Your task to perform on an android device: Do I have any events this weekend? Image 0: 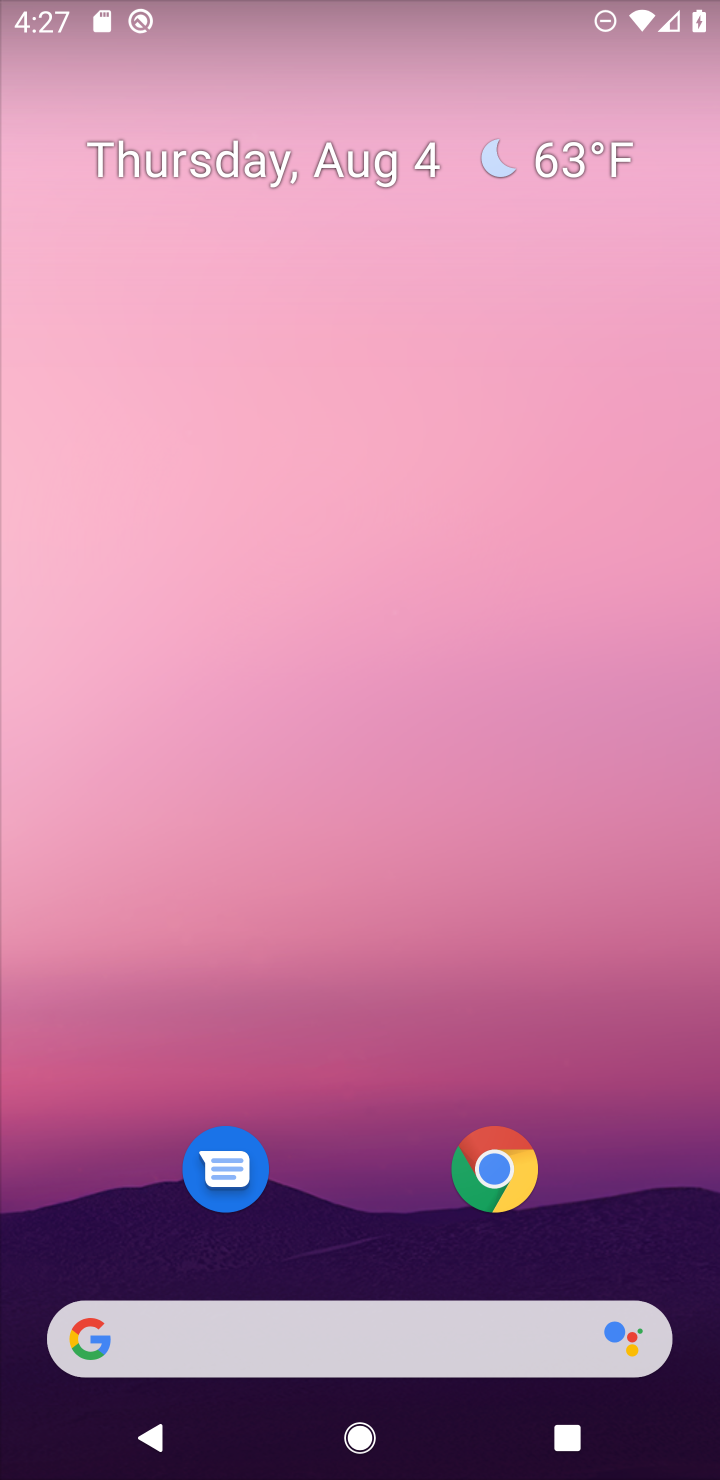
Step 0: drag from (369, 589) to (373, 4)
Your task to perform on an android device: Do I have any events this weekend? Image 1: 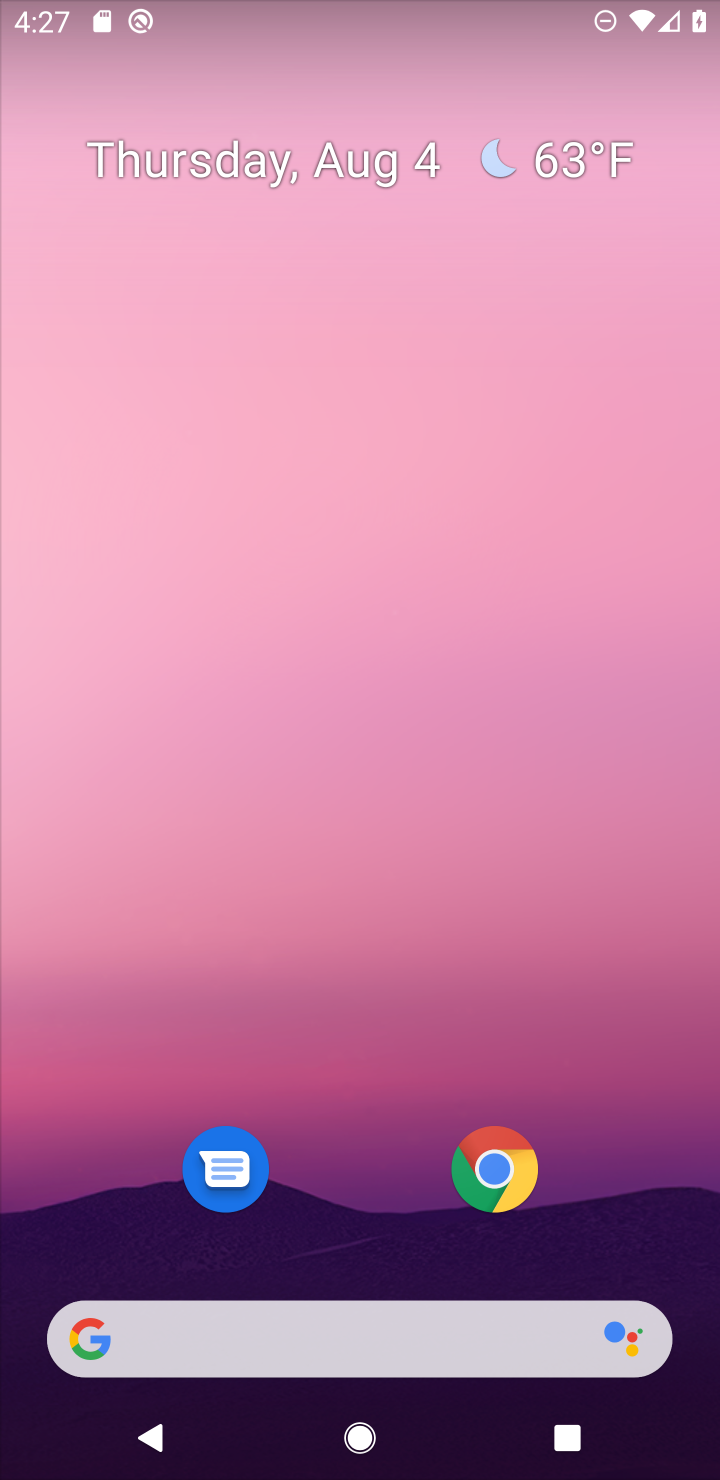
Step 1: drag from (381, 766) to (382, 101)
Your task to perform on an android device: Do I have any events this weekend? Image 2: 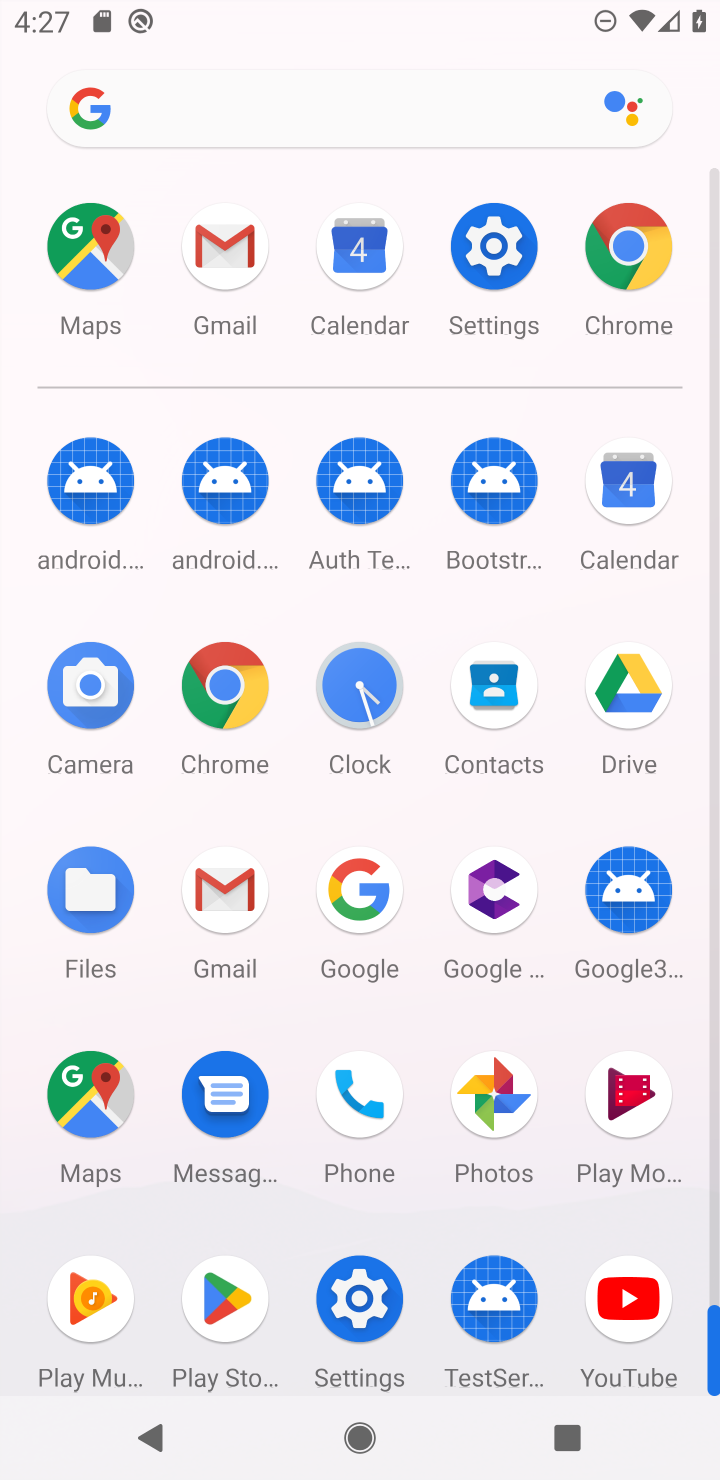
Step 2: click (622, 527)
Your task to perform on an android device: Do I have any events this weekend? Image 3: 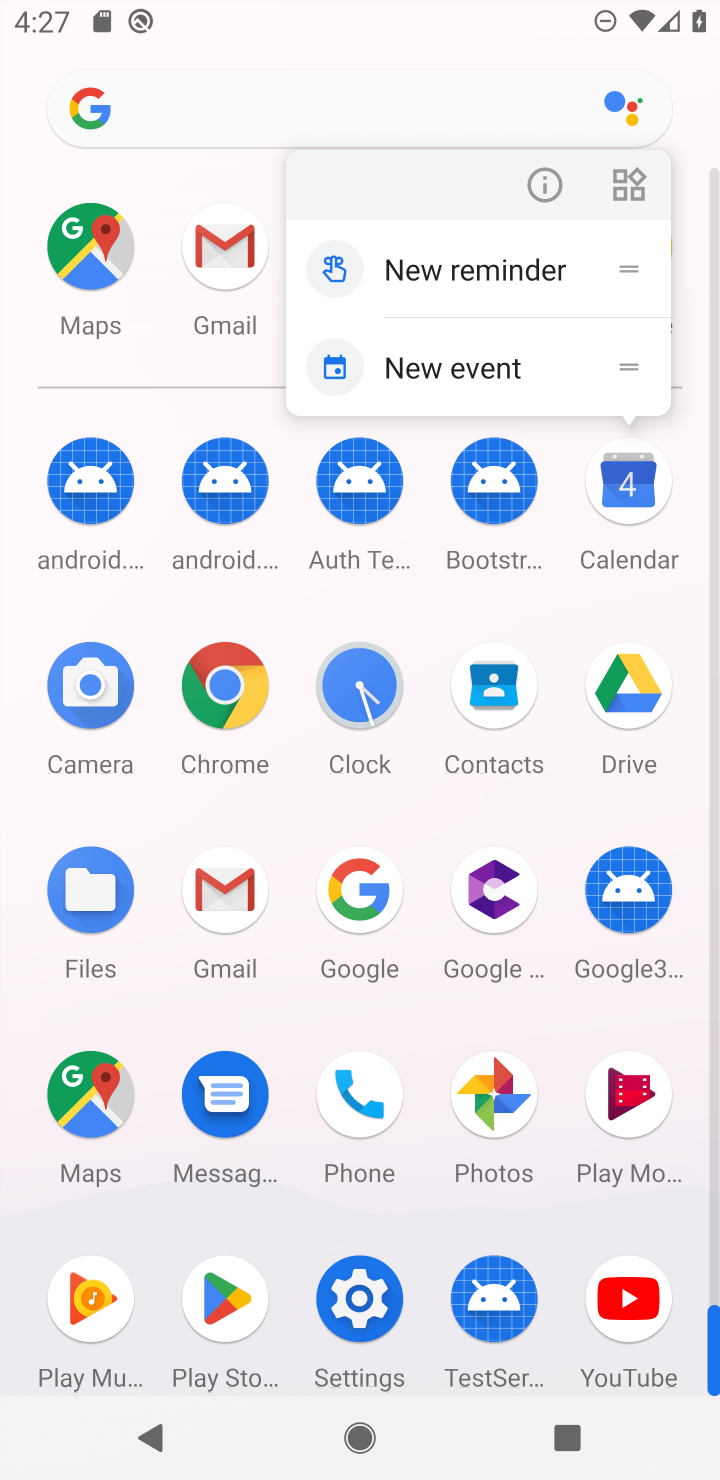
Step 3: click (621, 527)
Your task to perform on an android device: Do I have any events this weekend? Image 4: 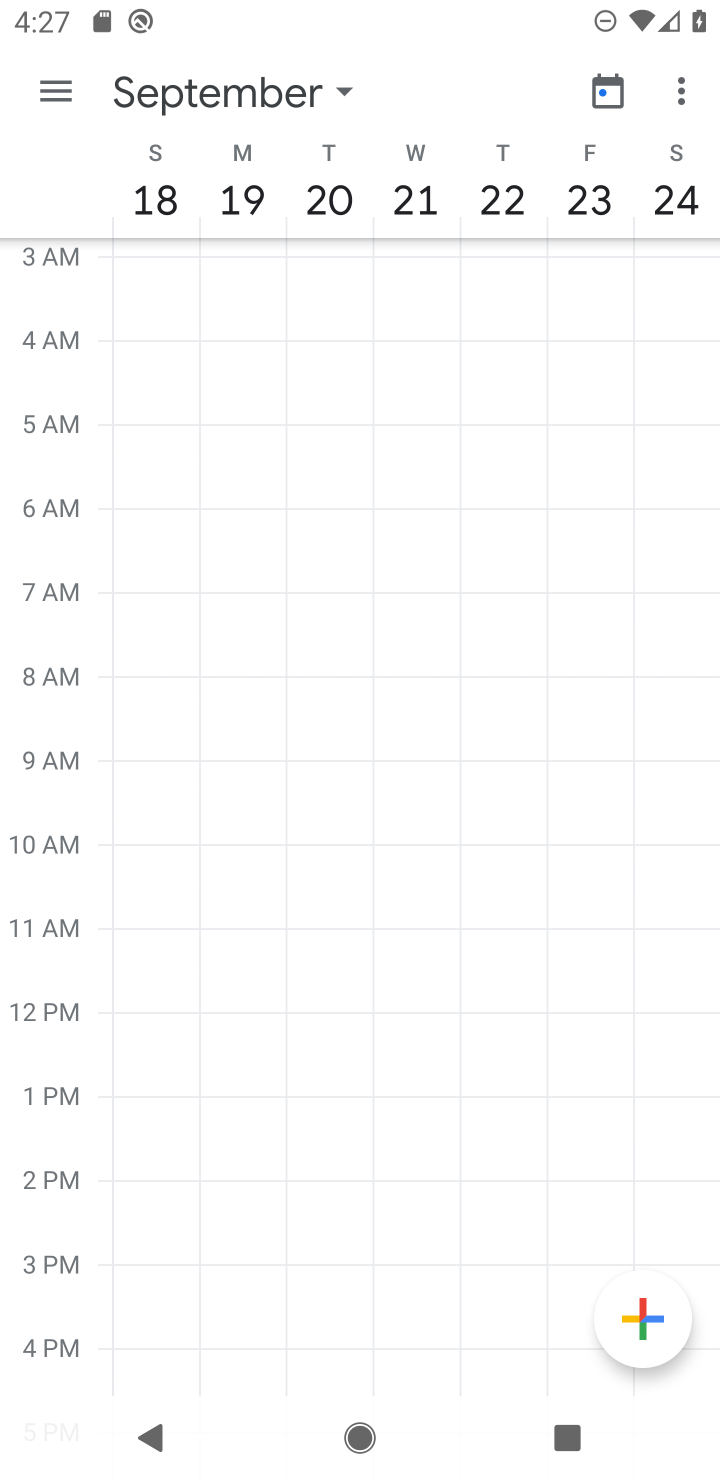
Step 4: click (211, 74)
Your task to perform on an android device: Do I have any events this weekend? Image 5: 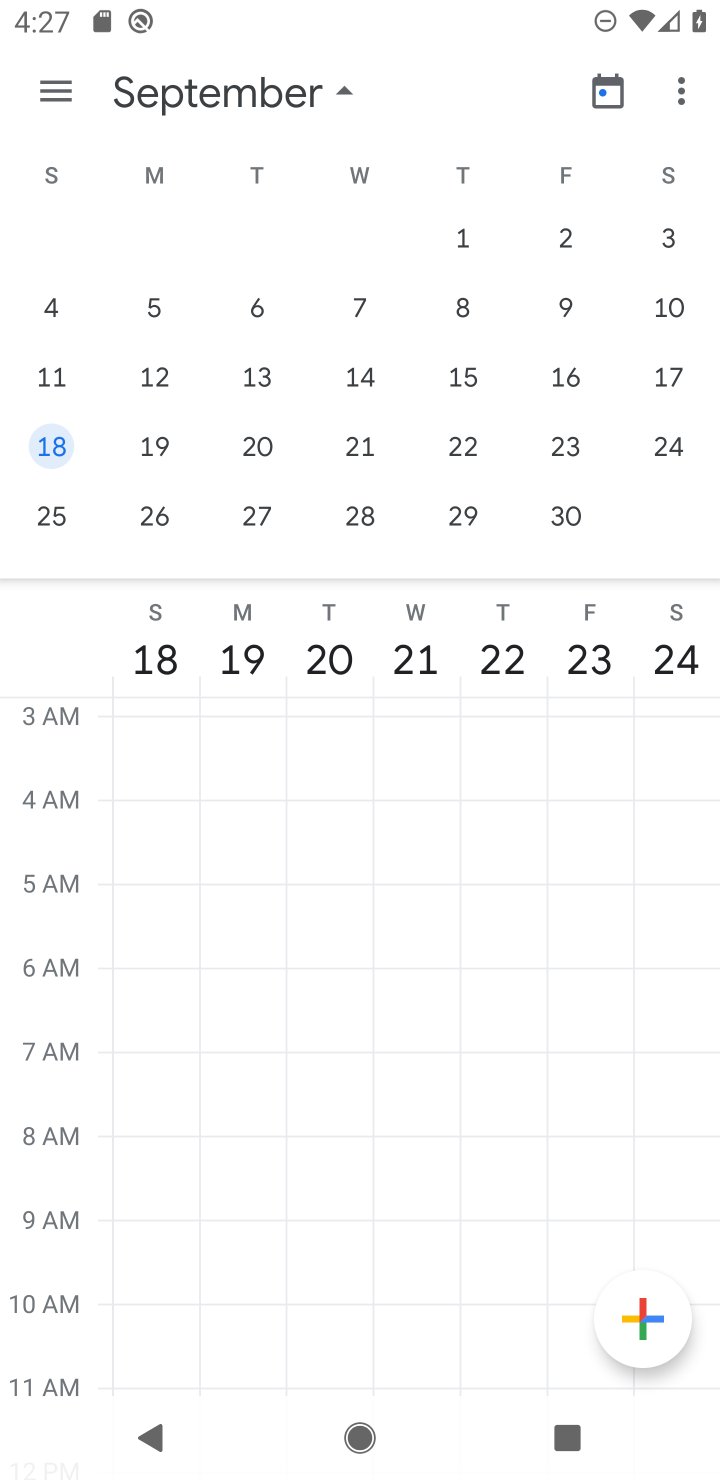
Step 5: drag from (308, 429) to (682, 471)
Your task to perform on an android device: Do I have any events this weekend? Image 6: 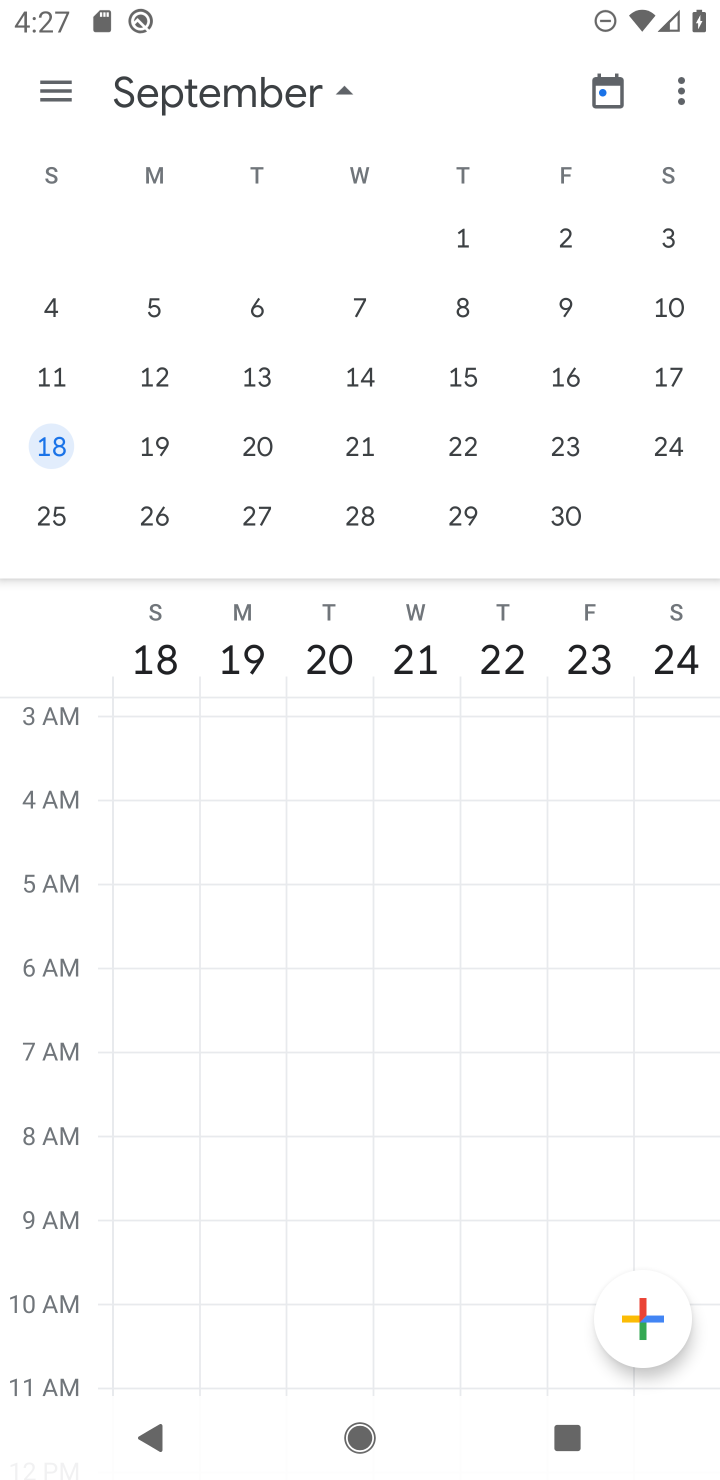
Step 6: drag from (180, 415) to (650, 417)
Your task to perform on an android device: Do I have any events this weekend? Image 7: 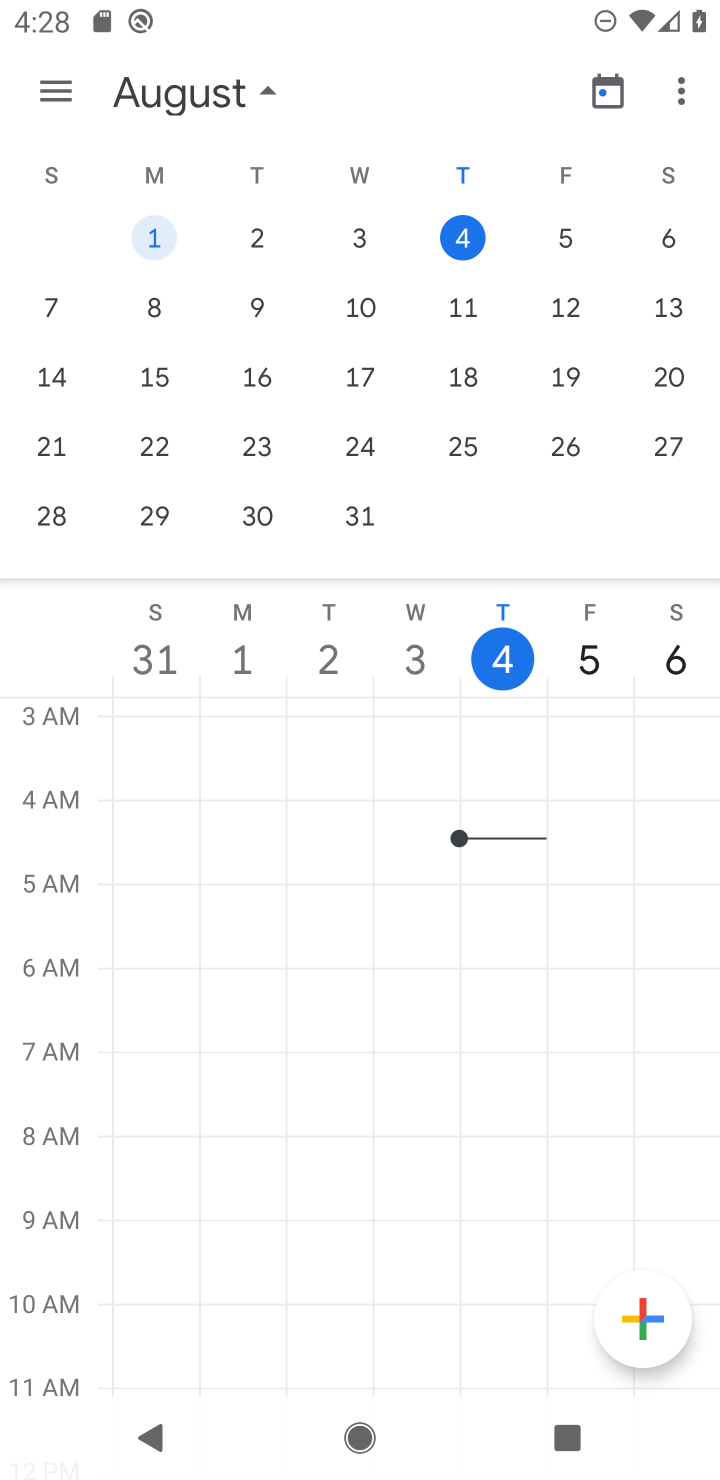
Step 7: click (50, 83)
Your task to perform on an android device: Do I have any events this weekend? Image 8: 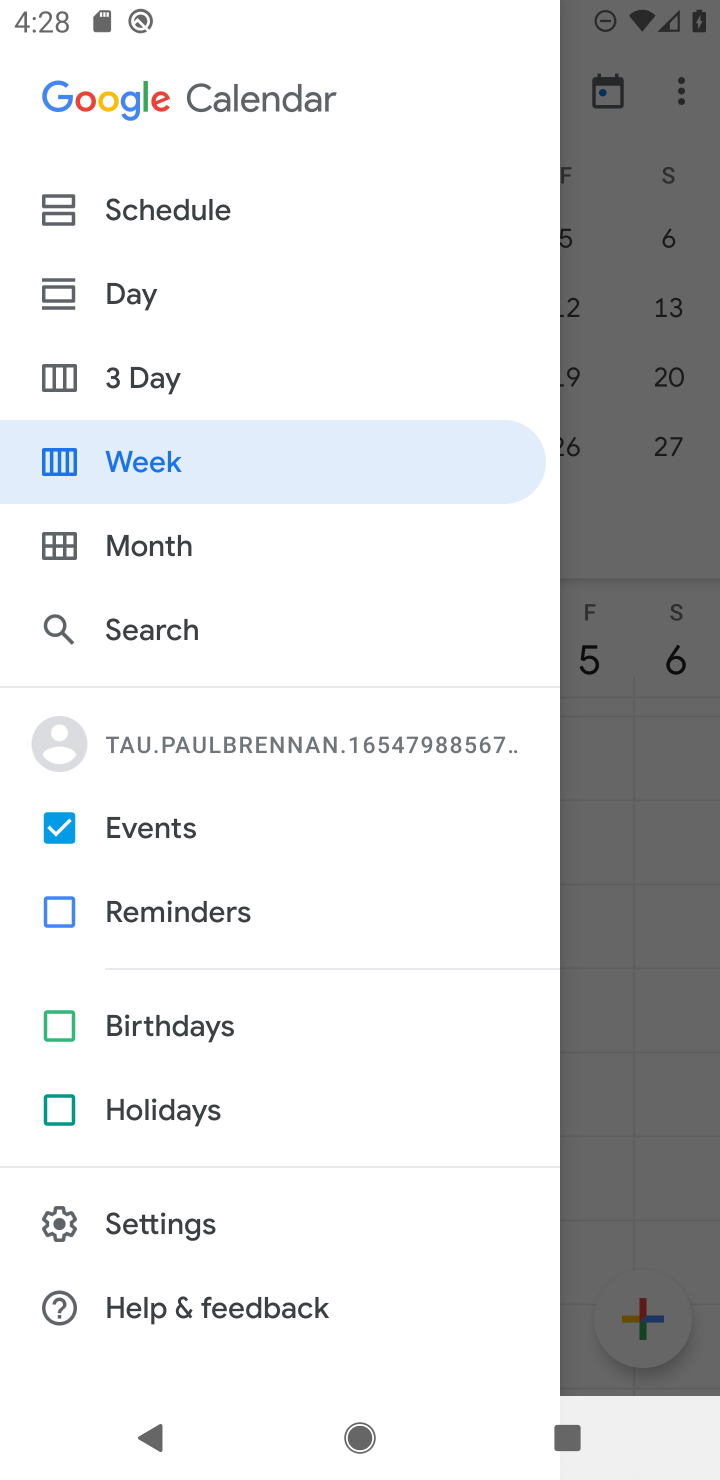
Step 8: click (179, 481)
Your task to perform on an android device: Do I have any events this weekend? Image 9: 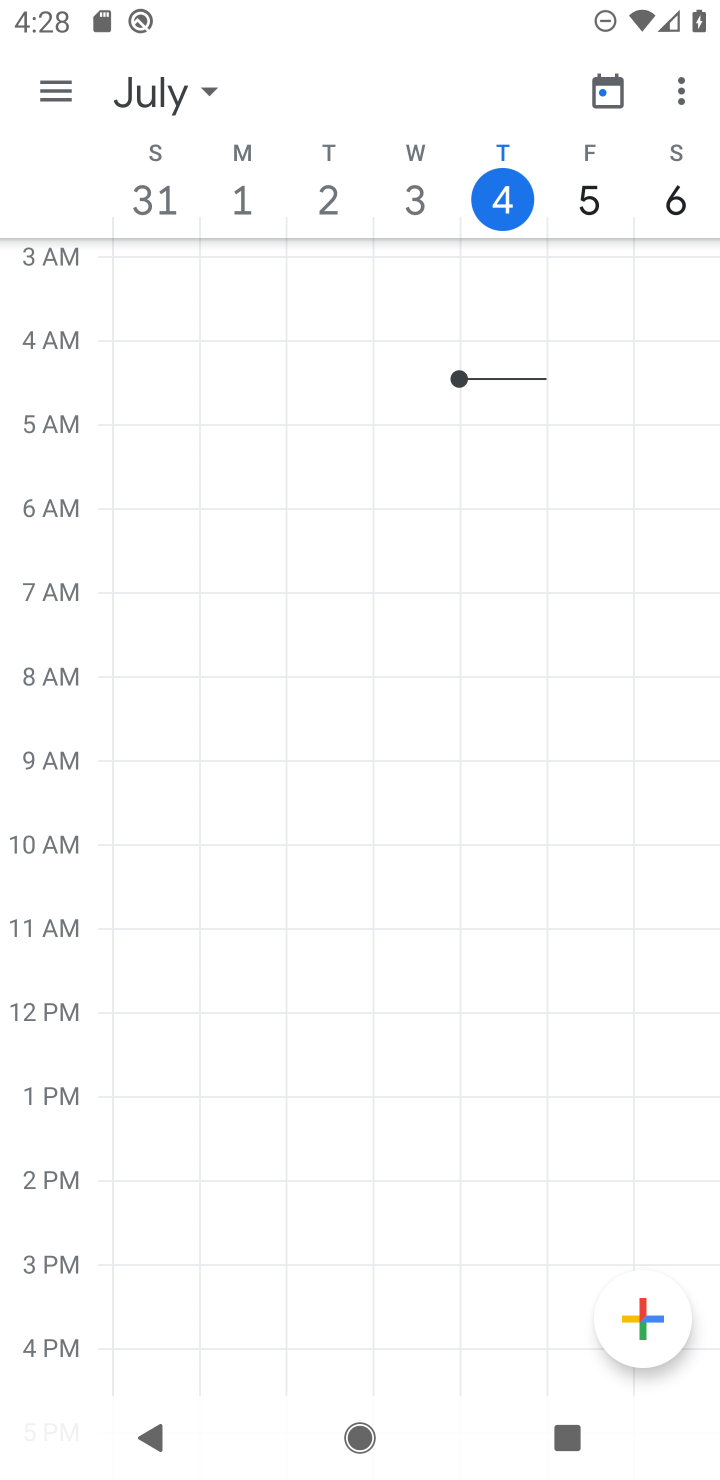
Step 9: task complete